Your task to perform on an android device: change the clock display to digital Image 0: 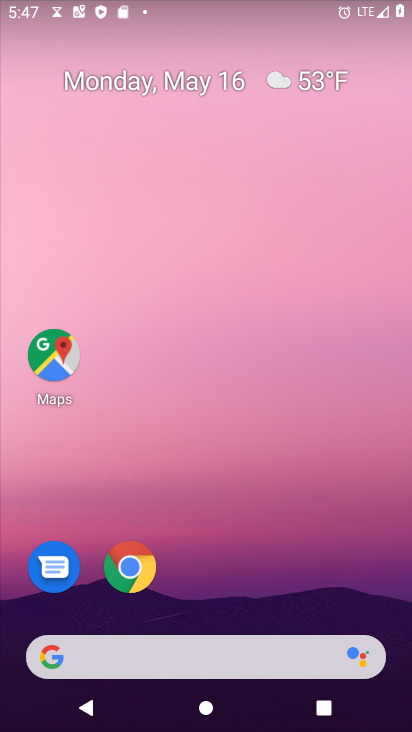
Step 0: drag from (302, 630) to (238, 46)
Your task to perform on an android device: change the clock display to digital Image 1: 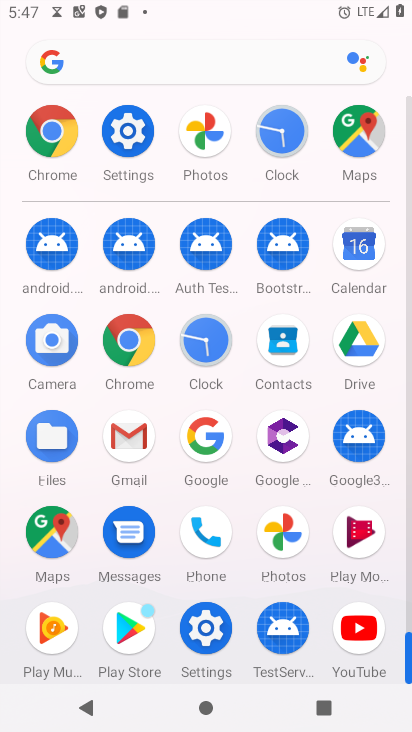
Step 1: click (222, 347)
Your task to perform on an android device: change the clock display to digital Image 2: 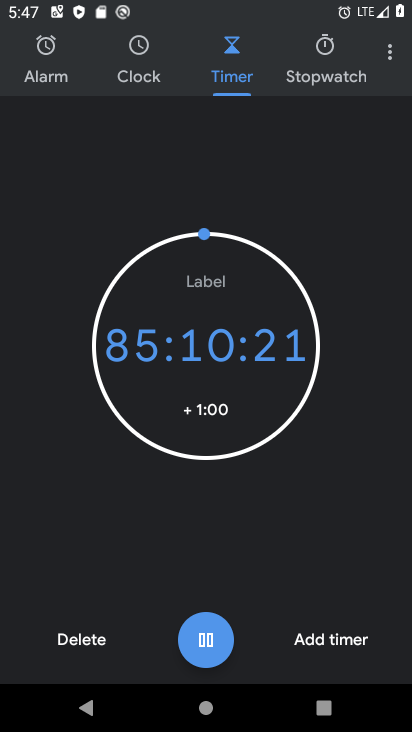
Step 2: click (398, 51)
Your task to perform on an android device: change the clock display to digital Image 3: 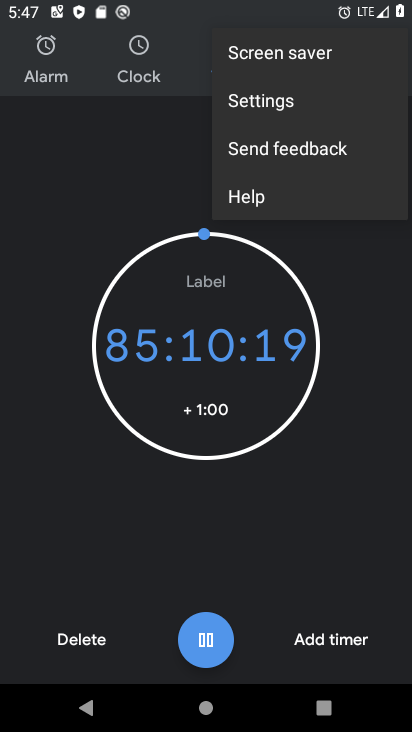
Step 3: click (284, 115)
Your task to perform on an android device: change the clock display to digital Image 4: 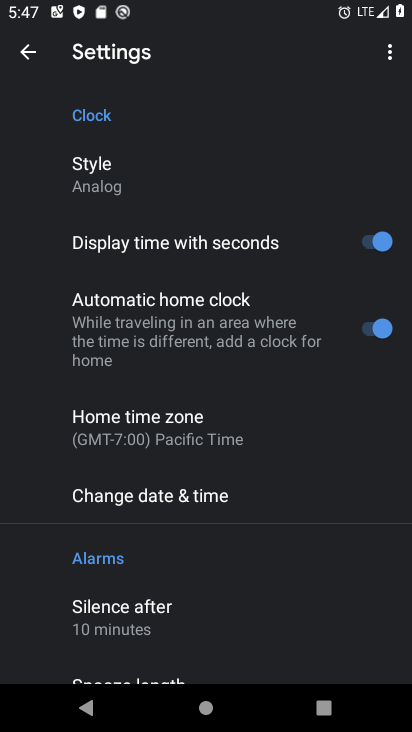
Step 4: click (145, 184)
Your task to perform on an android device: change the clock display to digital Image 5: 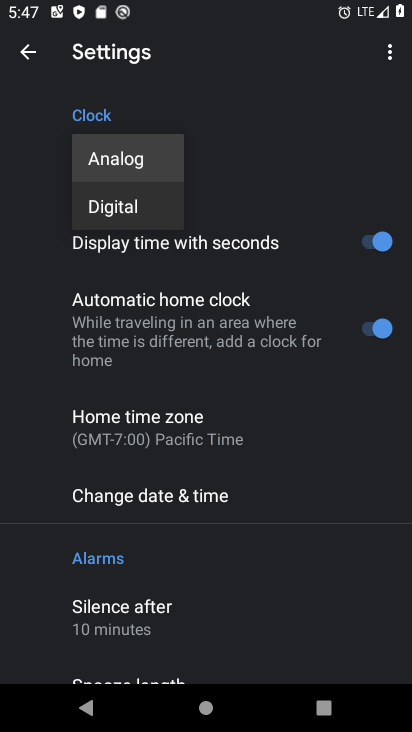
Step 5: click (128, 198)
Your task to perform on an android device: change the clock display to digital Image 6: 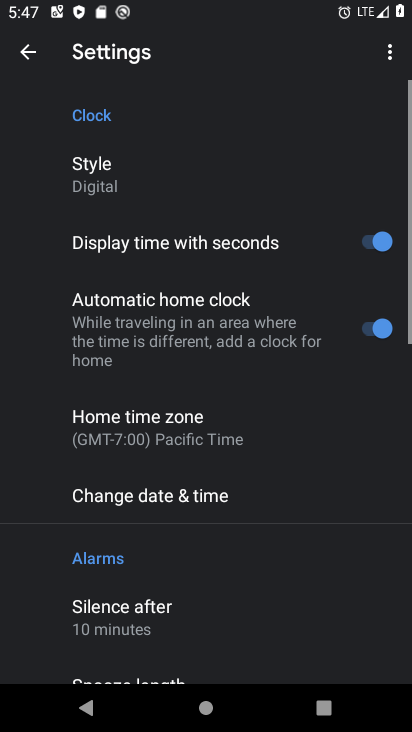
Step 6: task complete